Your task to perform on an android device: Go to accessibility settings Image 0: 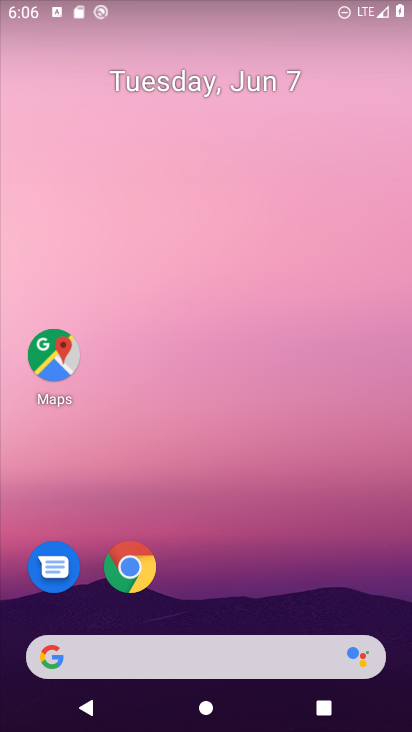
Step 0: drag from (285, 665) to (289, 65)
Your task to perform on an android device: Go to accessibility settings Image 1: 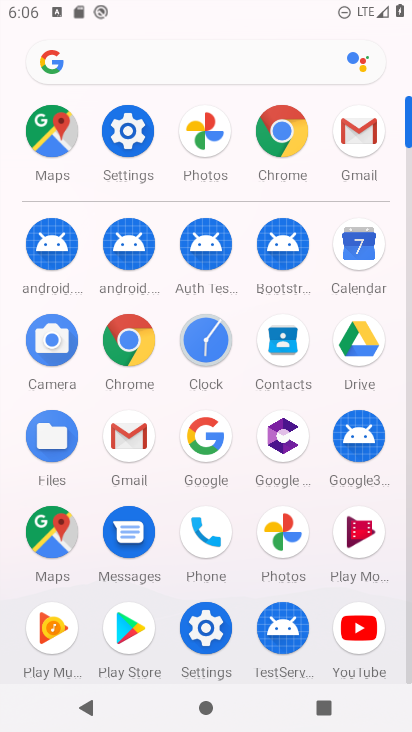
Step 1: click (125, 154)
Your task to perform on an android device: Go to accessibility settings Image 2: 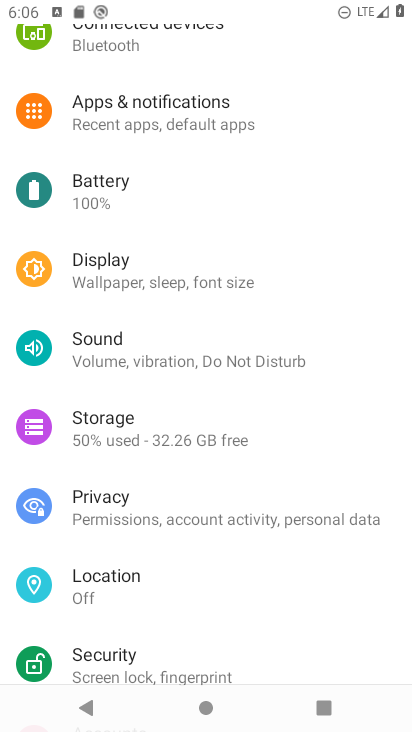
Step 2: drag from (160, 624) to (169, 194)
Your task to perform on an android device: Go to accessibility settings Image 3: 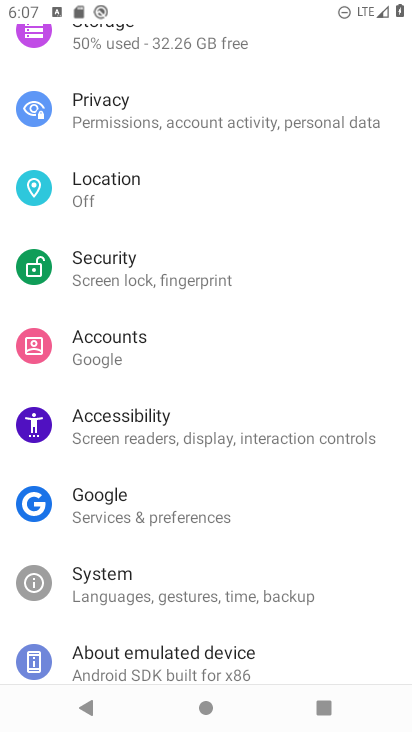
Step 3: click (111, 418)
Your task to perform on an android device: Go to accessibility settings Image 4: 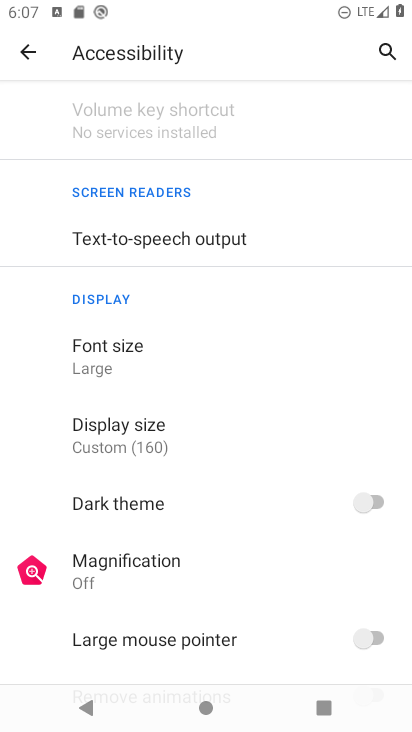
Step 4: task complete